Your task to perform on an android device: change timer sound Image 0: 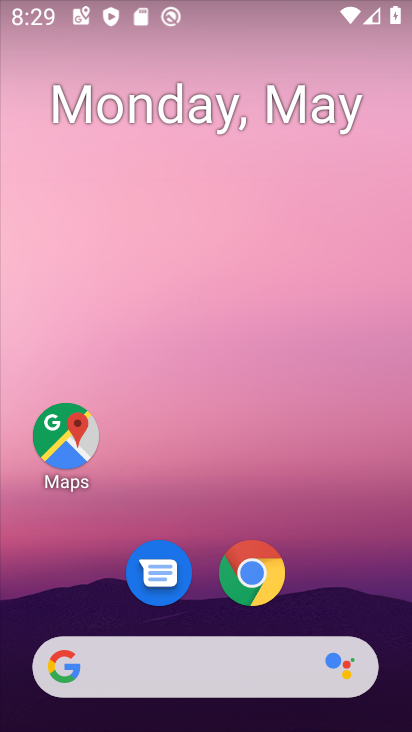
Step 0: drag from (351, 600) to (319, 88)
Your task to perform on an android device: change timer sound Image 1: 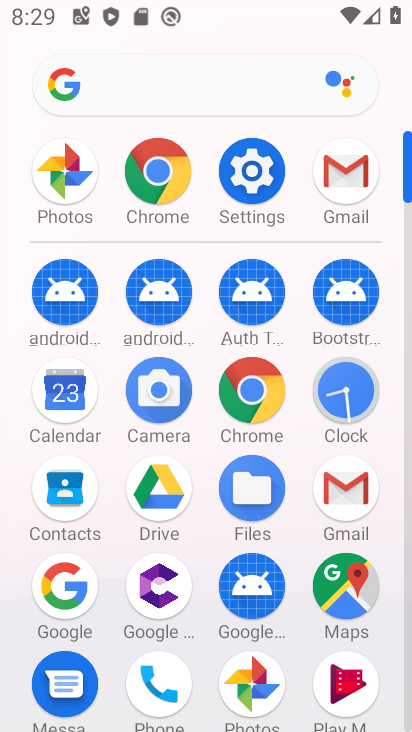
Step 1: click (273, 159)
Your task to perform on an android device: change timer sound Image 2: 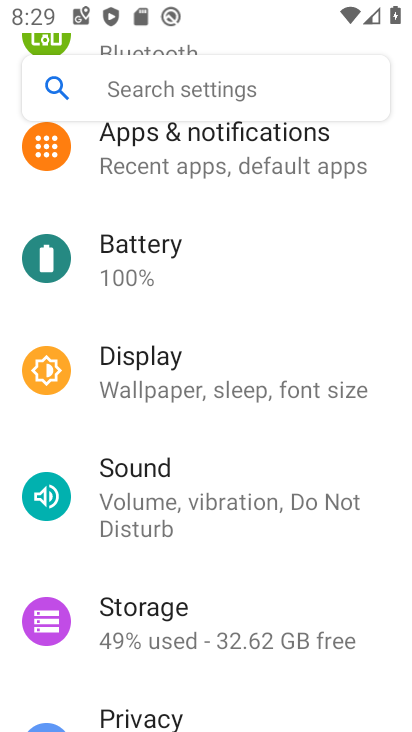
Step 2: click (143, 507)
Your task to perform on an android device: change timer sound Image 3: 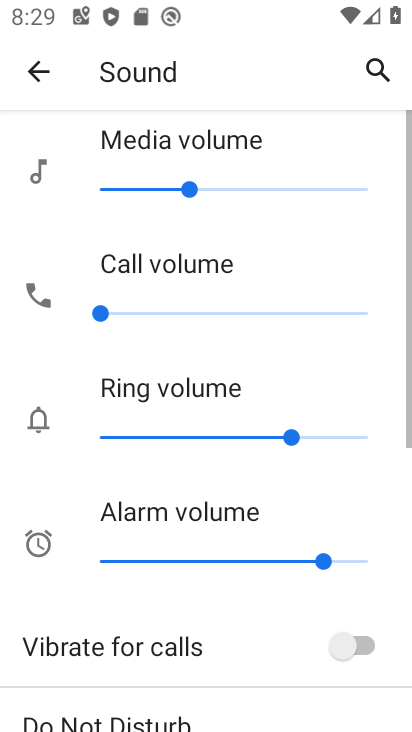
Step 3: press home button
Your task to perform on an android device: change timer sound Image 4: 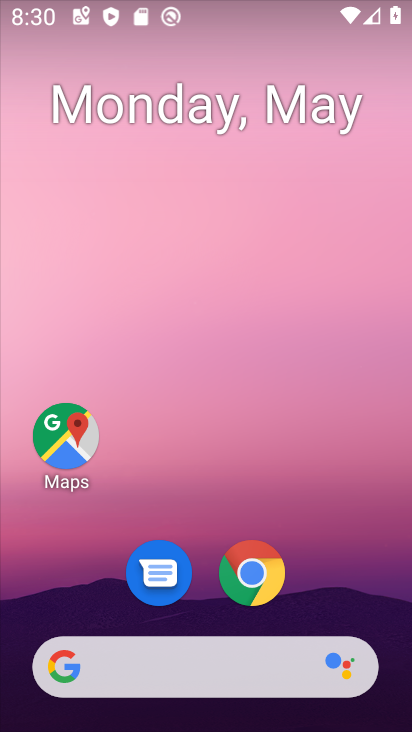
Step 4: drag from (338, 570) to (228, 28)
Your task to perform on an android device: change timer sound Image 5: 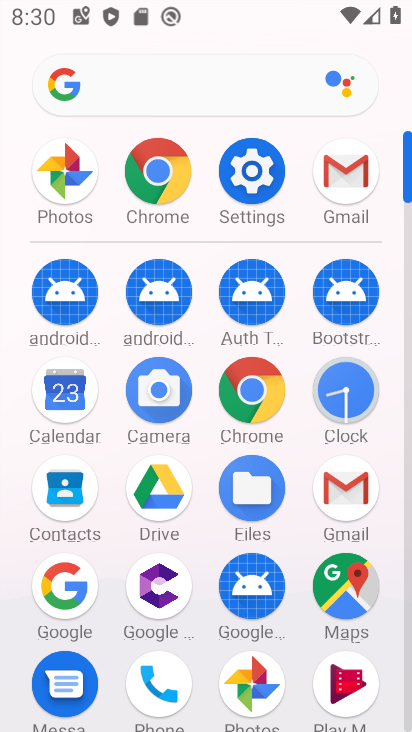
Step 5: click (354, 383)
Your task to perform on an android device: change timer sound Image 6: 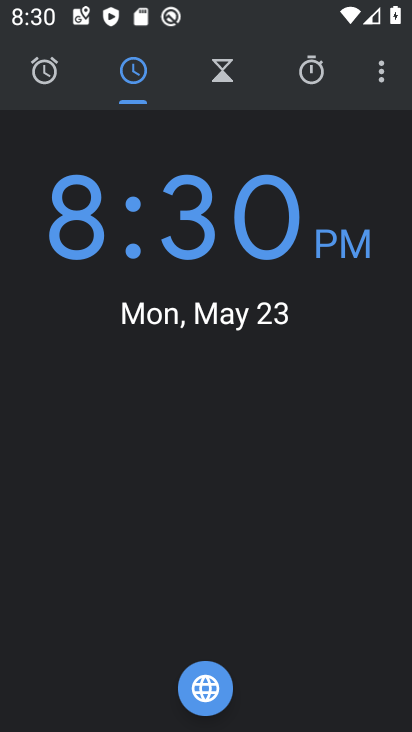
Step 6: click (389, 67)
Your task to perform on an android device: change timer sound Image 7: 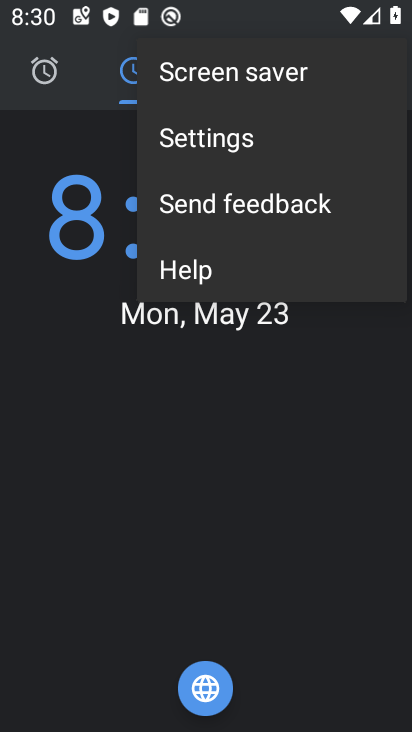
Step 7: click (297, 158)
Your task to perform on an android device: change timer sound Image 8: 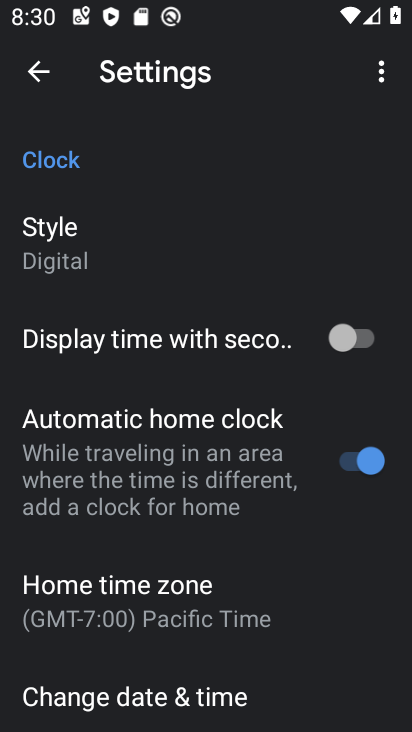
Step 8: click (189, 706)
Your task to perform on an android device: change timer sound Image 9: 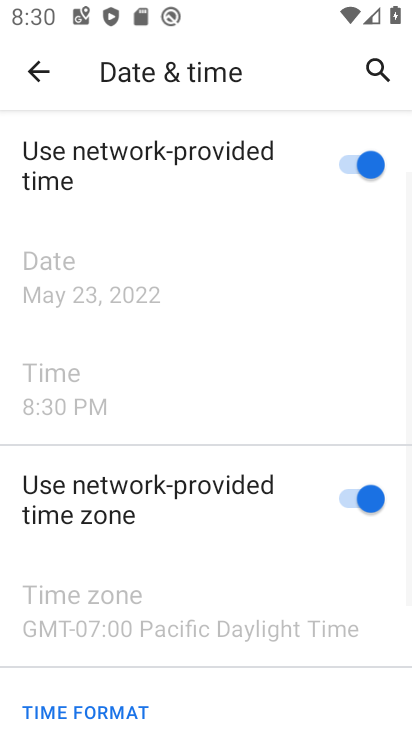
Step 9: task complete